Your task to perform on an android device: Go to display settings Image 0: 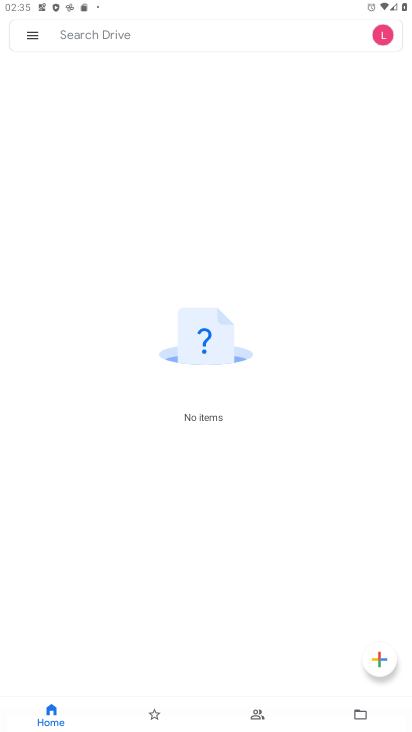
Step 0: press home button
Your task to perform on an android device: Go to display settings Image 1: 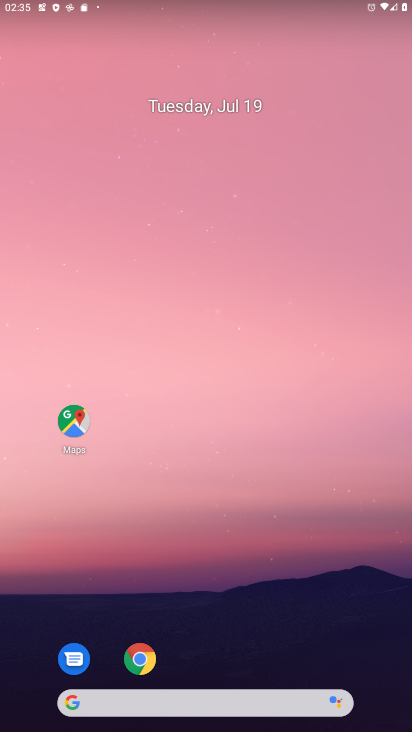
Step 1: drag from (210, 626) to (242, 195)
Your task to perform on an android device: Go to display settings Image 2: 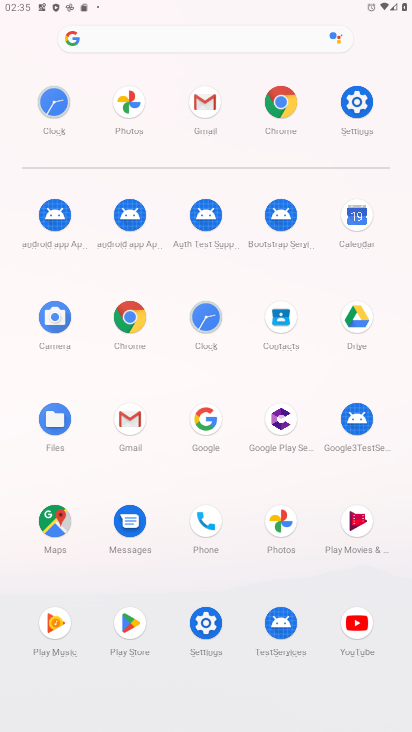
Step 2: click (345, 118)
Your task to perform on an android device: Go to display settings Image 3: 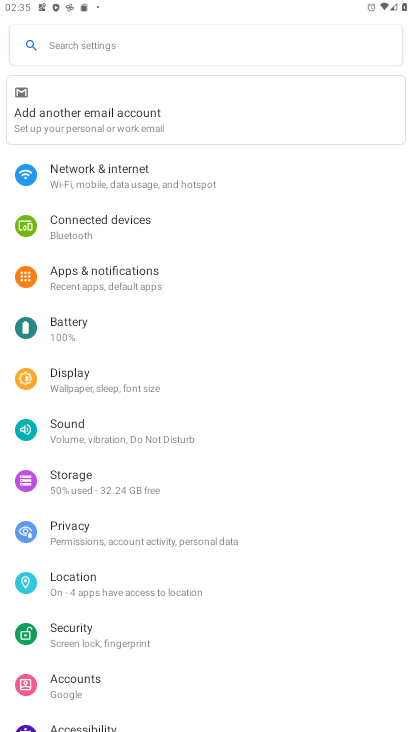
Step 3: click (73, 379)
Your task to perform on an android device: Go to display settings Image 4: 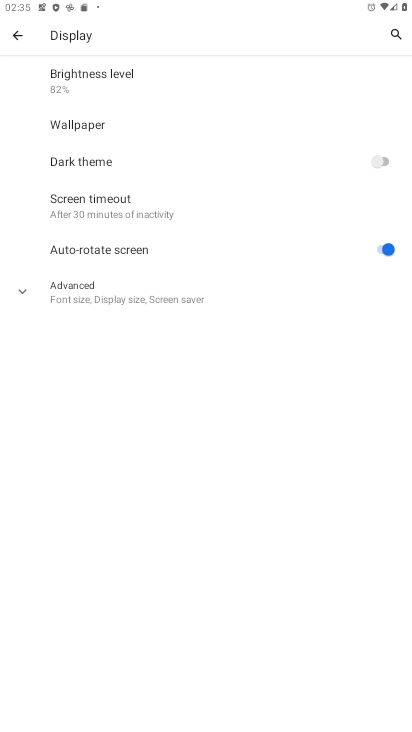
Step 4: task complete